Your task to perform on an android device: Go to display settings Image 0: 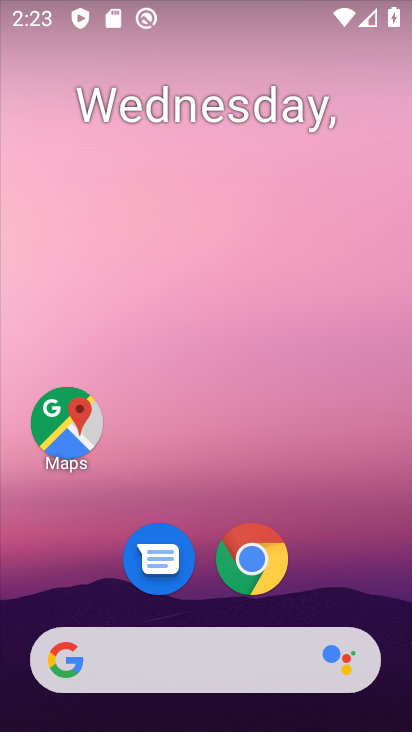
Step 0: drag from (245, 637) to (260, 15)
Your task to perform on an android device: Go to display settings Image 1: 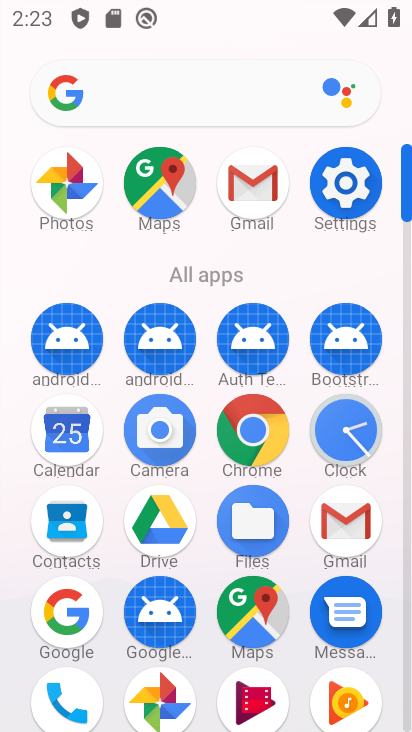
Step 1: click (333, 188)
Your task to perform on an android device: Go to display settings Image 2: 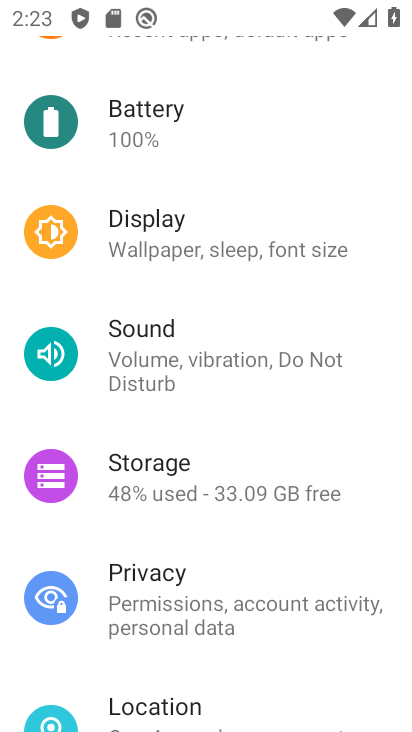
Step 2: drag from (180, 163) to (171, 603)
Your task to perform on an android device: Go to display settings Image 3: 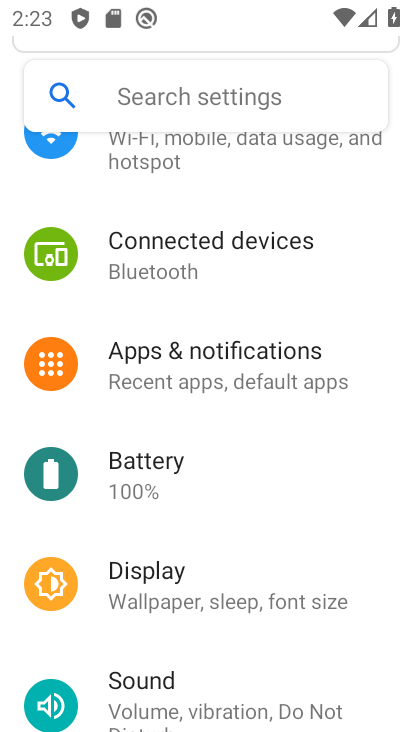
Step 3: drag from (194, 236) to (193, 593)
Your task to perform on an android device: Go to display settings Image 4: 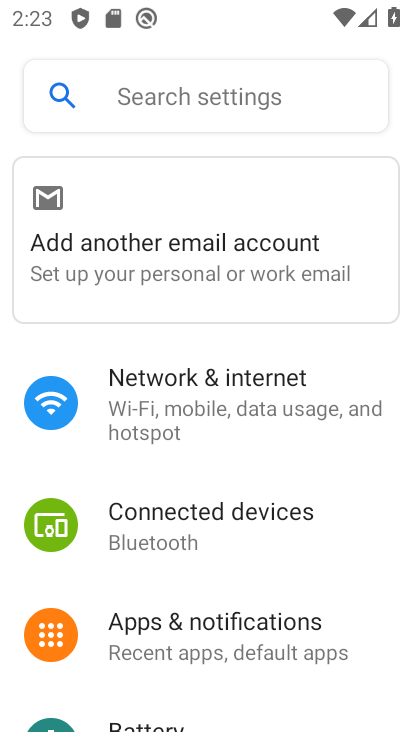
Step 4: drag from (215, 634) to (222, 263)
Your task to perform on an android device: Go to display settings Image 5: 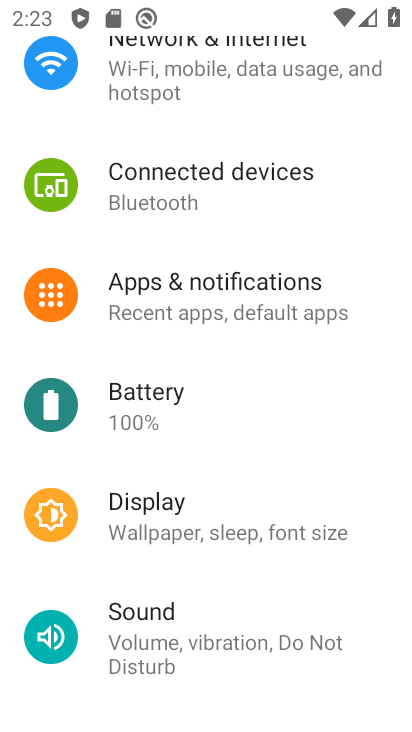
Step 5: drag from (181, 613) to (185, 412)
Your task to perform on an android device: Go to display settings Image 6: 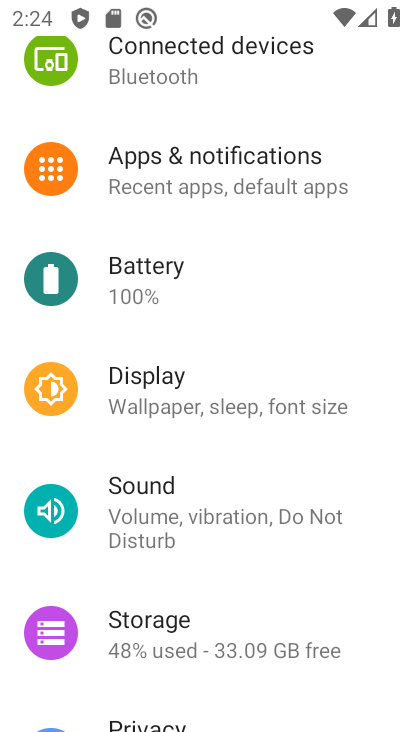
Step 6: click (145, 391)
Your task to perform on an android device: Go to display settings Image 7: 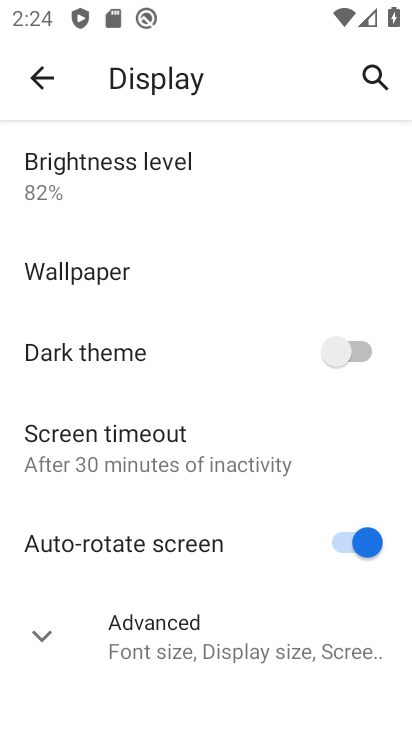
Step 7: task complete